Your task to perform on an android device: turn off airplane mode Image 0: 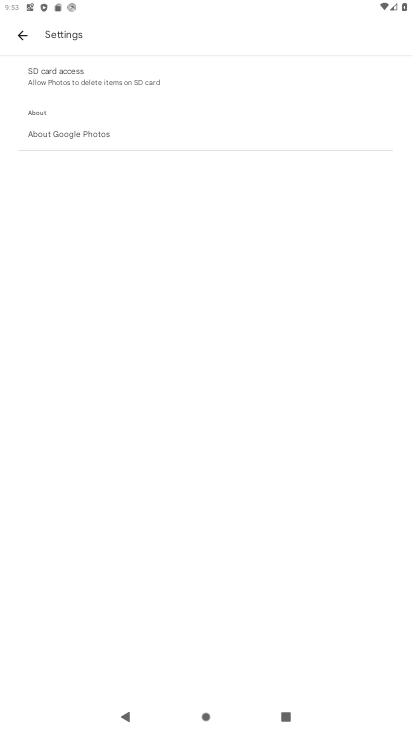
Step 0: press home button
Your task to perform on an android device: turn off airplane mode Image 1: 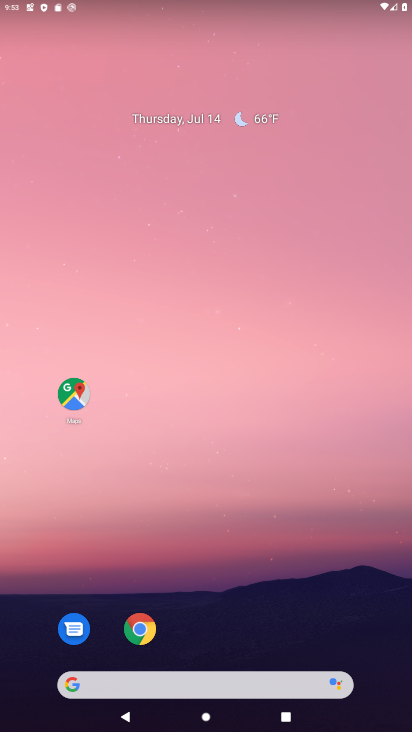
Step 1: task complete